Your task to perform on an android device: clear history in the chrome app Image 0: 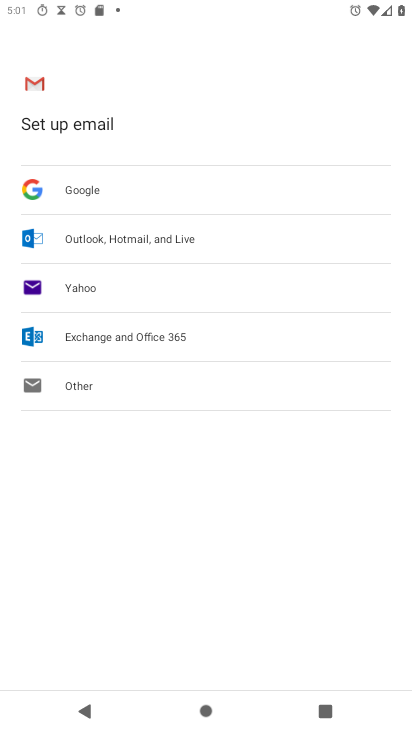
Step 0: press home button
Your task to perform on an android device: clear history in the chrome app Image 1: 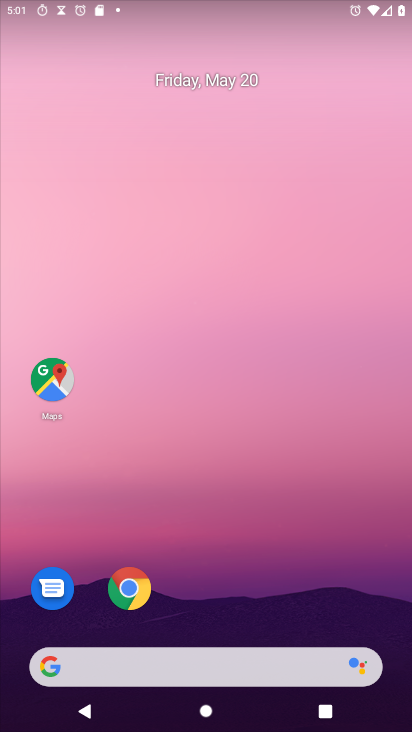
Step 1: drag from (216, 623) to (234, 200)
Your task to perform on an android device: clear history in the chrome app Image 2: 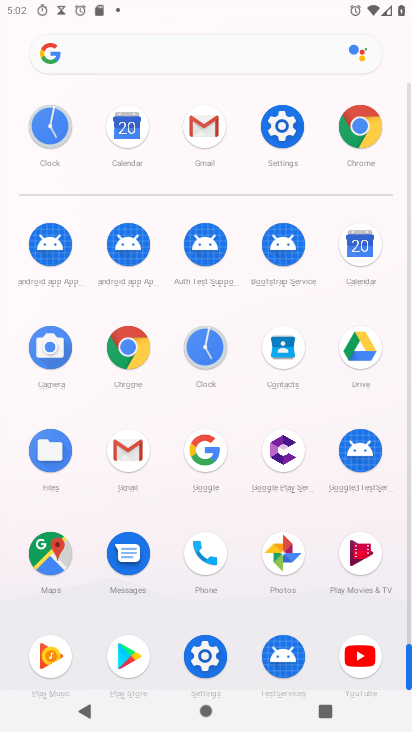
Step 2: click (123, 341)
Your task to perform on an android device: clear history in the chrome app Image 3: 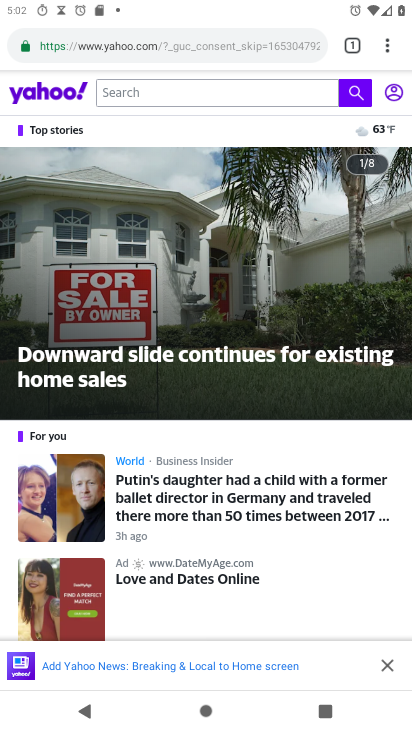
Step 3: drag from (385, 46) to (234, 249)
Your task to perform on an android device: clear history in the chrome app Image 4: 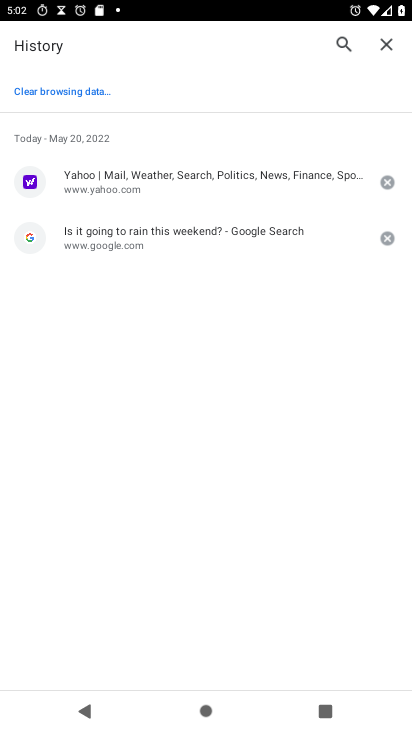
Step 4: click (31, 237)
Your task to perform on an android device: clear history in the chrome app Image 5: 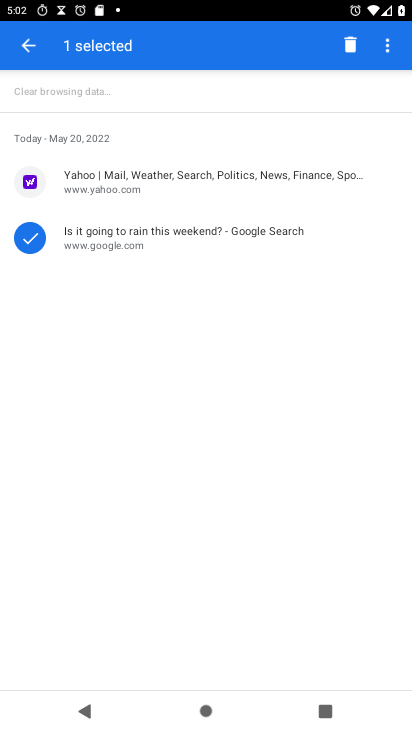
Step 5: click (25, 176)
Your task to perform on an android device: clear history in the chrome app Image 6: 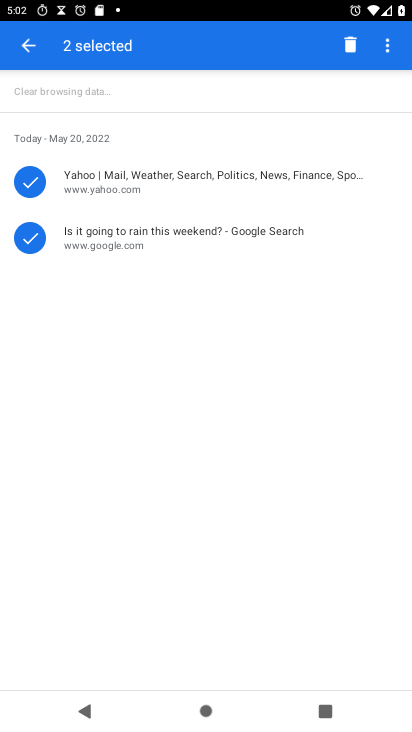
Step 6: click (343, 46)
Your task to perform on an android device: clear history in the chrome app Image 7: 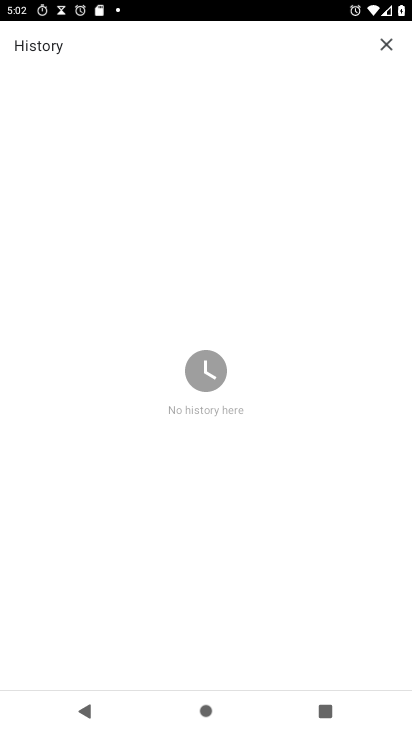
Step 7: task complete